Your task to perform on an android device: Open calendar and show me the second week of next month Image 0: 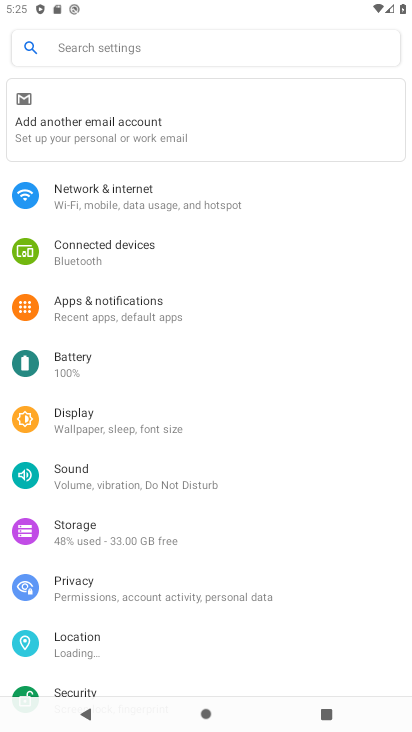
Step 0: click (226, 717)
Your task to perform on an android device: Open calendar and show me the second week of next month Image 1: 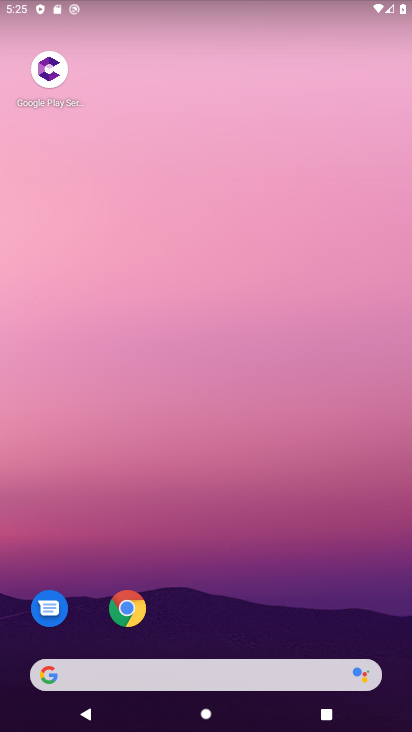
Step 1: drag from (208, 611) to (336, 1)
Your task to perform on an android device: Open calendar and show me the second week of next month Image 2: 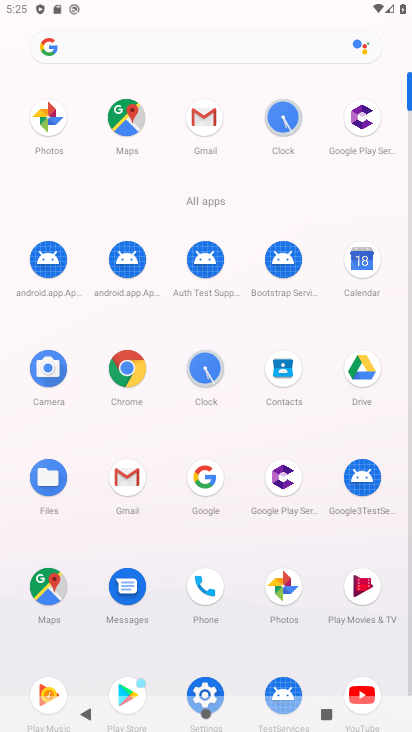
Step 2: click (358, 266)
Your task to perform on an android device: Open calendar and show me the second week of next month Image 3: 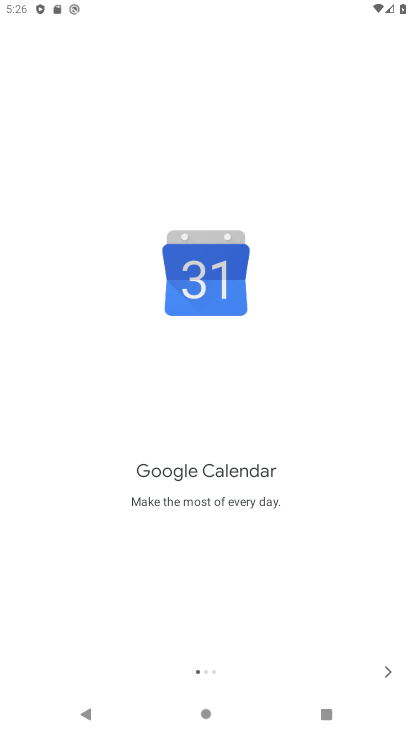
Step 3: click (388, 671)
Your task to perform on an android device: Open calendar and show me the second week of next month Image 4: 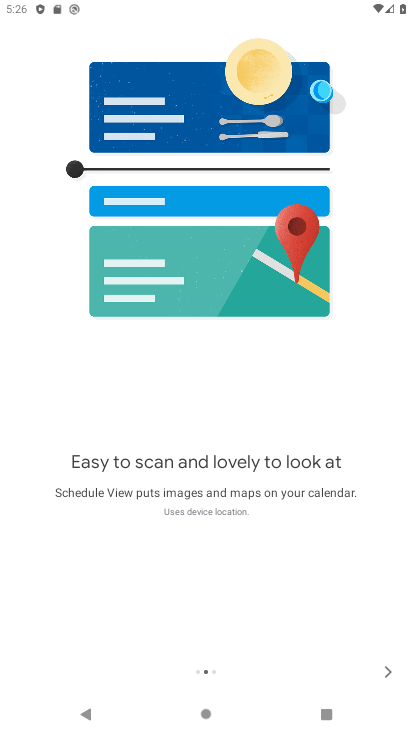
Step 4: click (380, 664)
Your task to perform on an android device: Open calendar and show me the second week of next month Image 5: 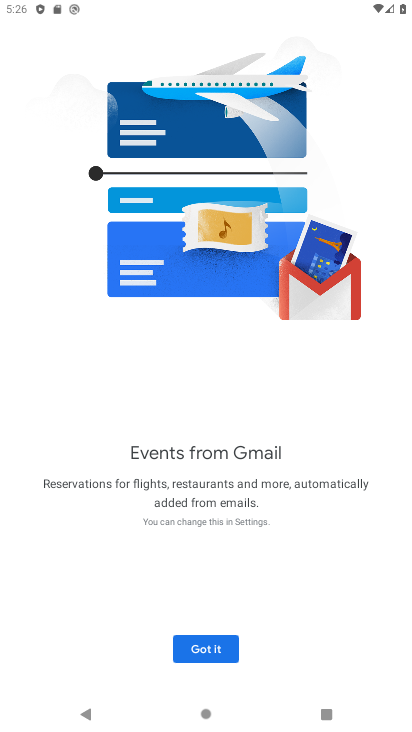
Step 5: click (225, 655)
Your task to perform on an android device: Open calendar and show me the second week of next month Image 6: 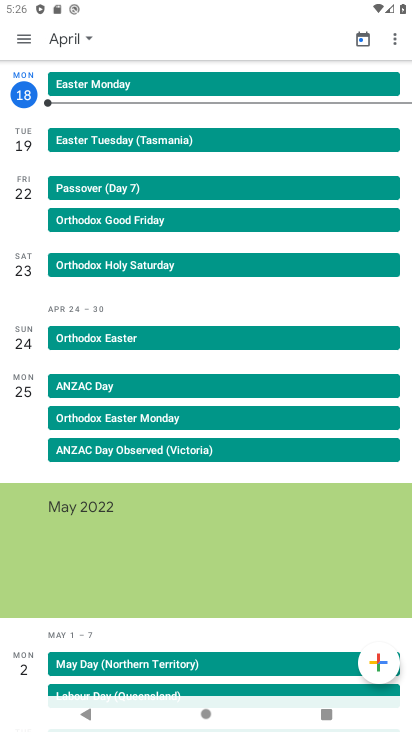
Step 6: click (21, 39)
Your task to perform on an android device: Open calendar and show me the second week of next month Image 7: 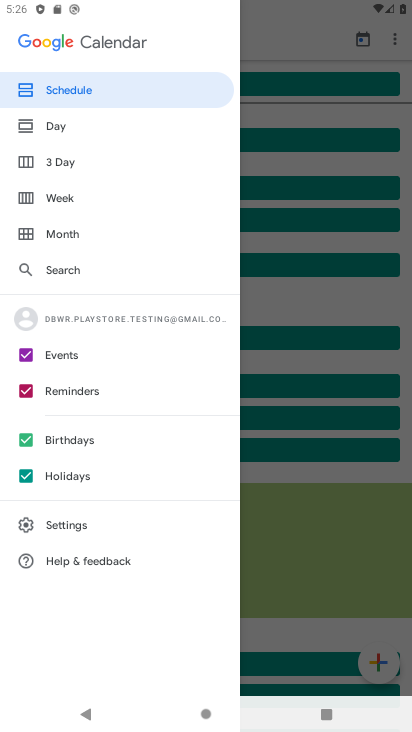
Step 7: click (71, 202)
Your task to perform on an android device: Open calendar and show me the second week of next month Image 8: 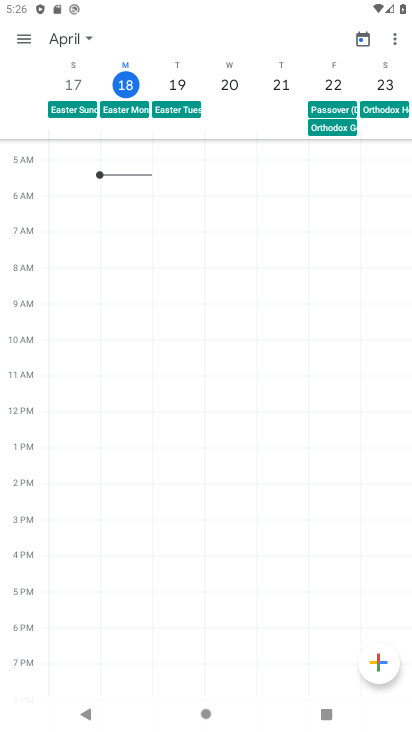
Step 8: task complete